Your task to perform on an android device: turn on priority inbox in the gmail app Image 0: 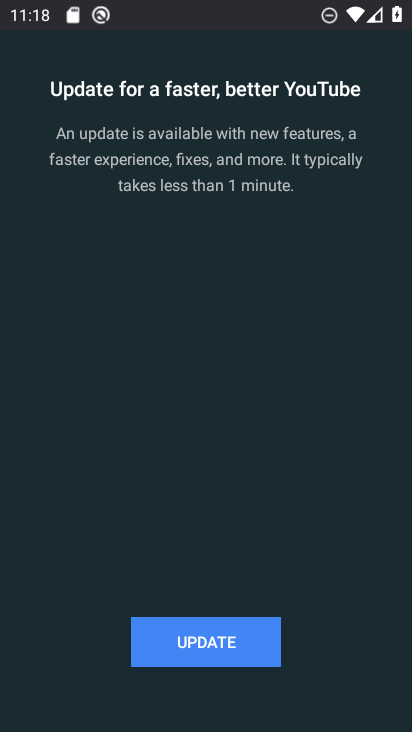
Step 0: press home button
Your task to perform on an android device: turn on priority inbox in the gmail app Image 1: 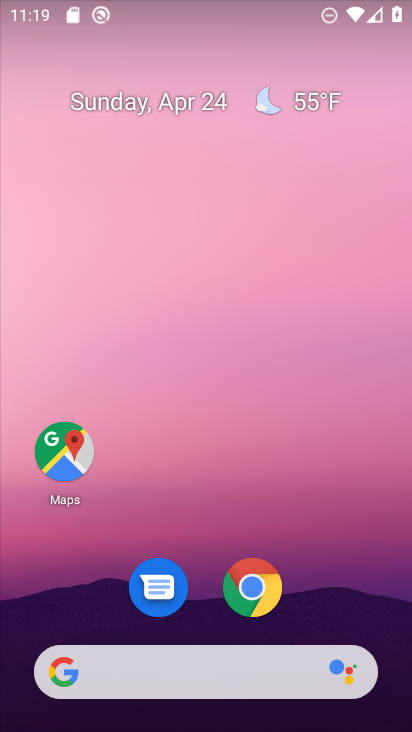
Step 1: drag from (342, 570) to (274, 65)
Your task to perform on an android device: turn on priority inbox in the gmail app Image 2: 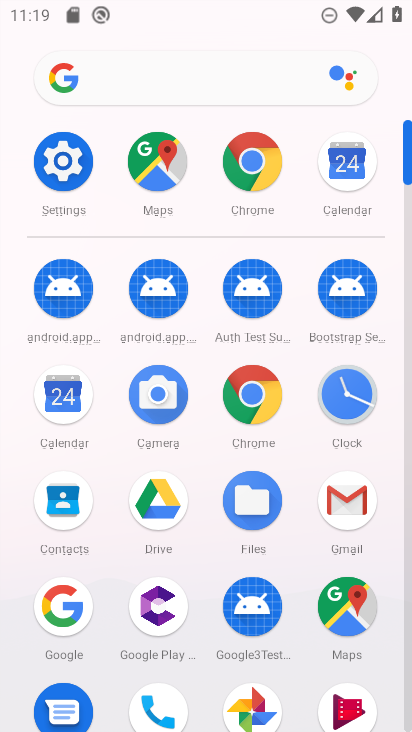
Step 2: click (332, 499)
Your task to perform on an android device: turn on priority inbox in the gmail app Image 3: 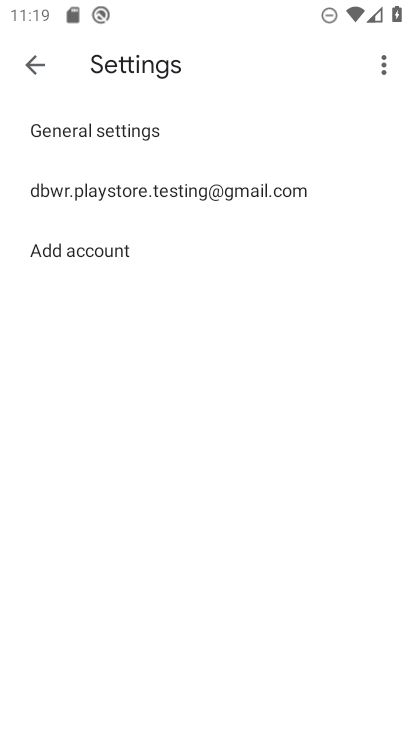
Step 3: click (114, 198)
Your task to perform on an android device: turn on priority inbox in the gmail app Image 4: 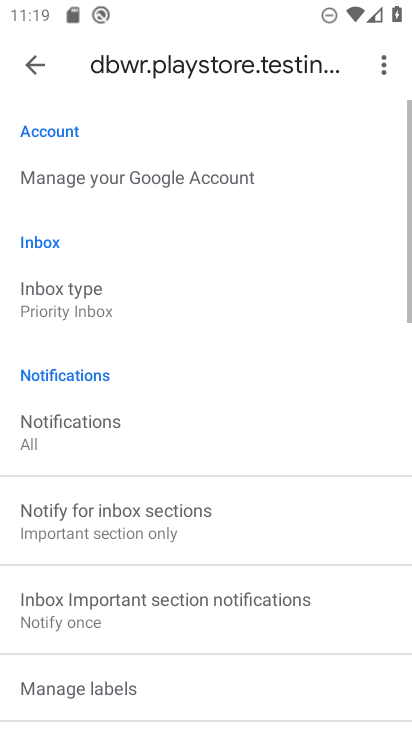
Step 4: click (91, 301)
Your task to perform on an android device: turn on priority inbox in the gmail app Image 5: 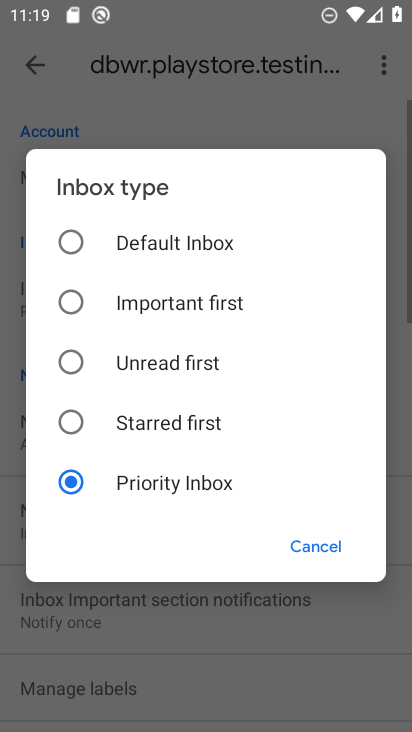
Step 5: task complete